Your task to perform on an android device: toggle show notifications on the lock screen Image 0: 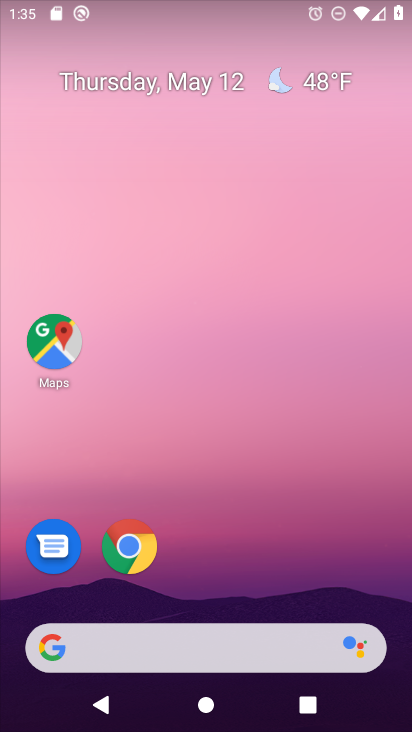
Step 0: drag from (235, 629) to (351, 181)
Your task to perform on an android device: toggle show notifications on the lock screen Image 1: 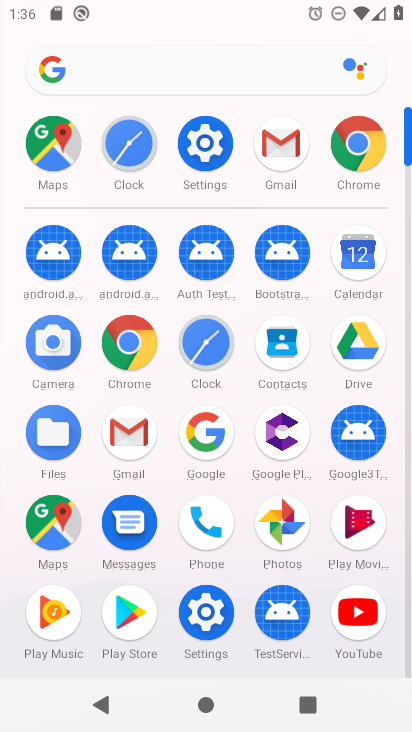
Step 1: click (209, 150)
Your task to perform on an android device: toggle show notifications on the lock screen Image 2: 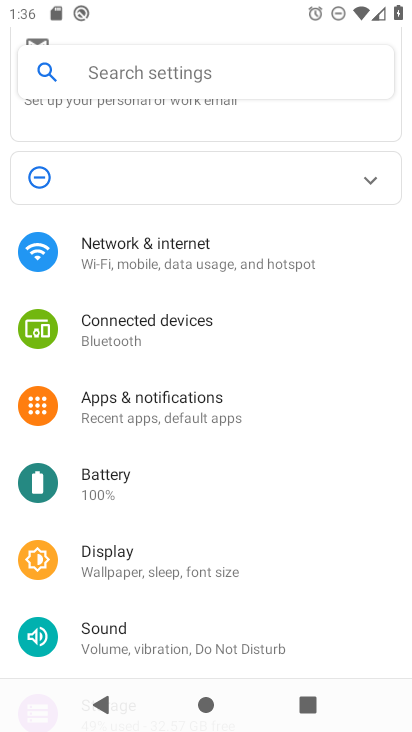
Step 2: drag from (266, 523) to (287, 319)
Your task to perform on an android device: toggle show notifications on the lock screen Image 3: 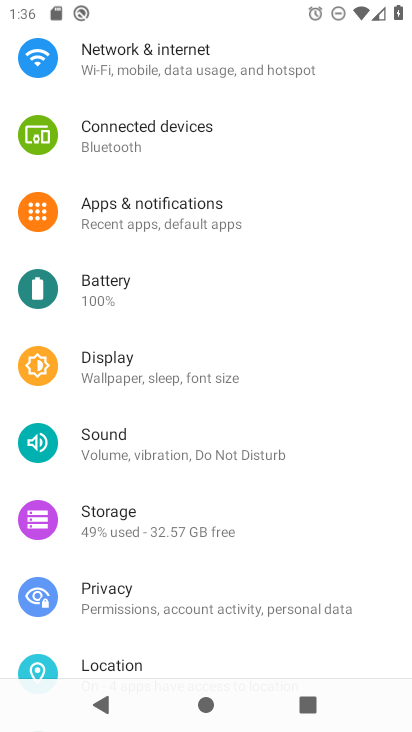
Step 3: click (200, 217)
Your task to perform on an android device: toggle show notifications on the lock screen Image 4: 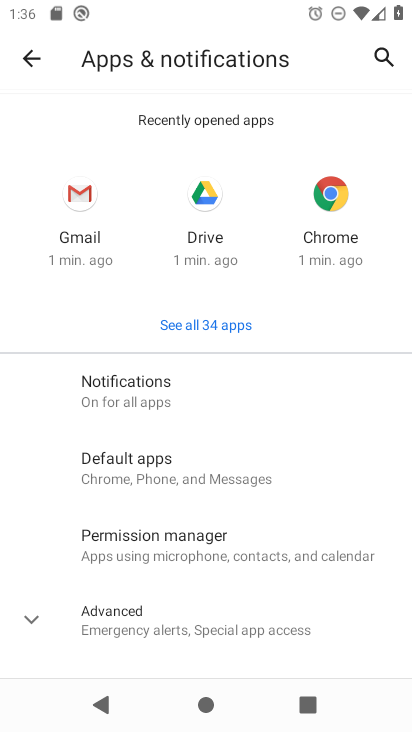
Step 4: click (137, 399)
Your task to perform on an android device: toggle show notifications on the lock screen Image 5: 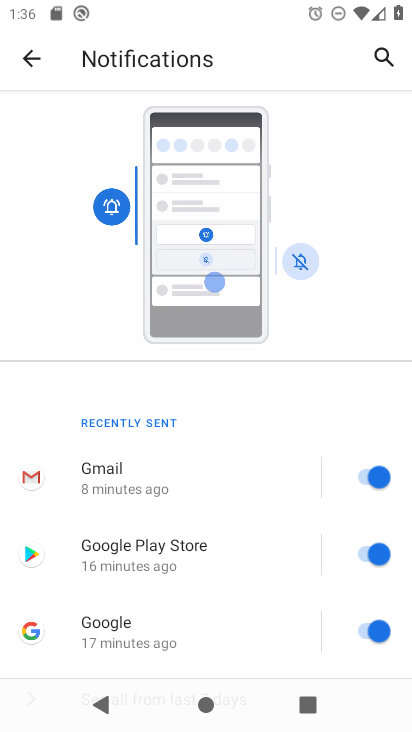
Step 5: drag from (213, 539) to (378, 131)
Your task to perform on an android device: toggle show notifications on the lock screen Image 6: 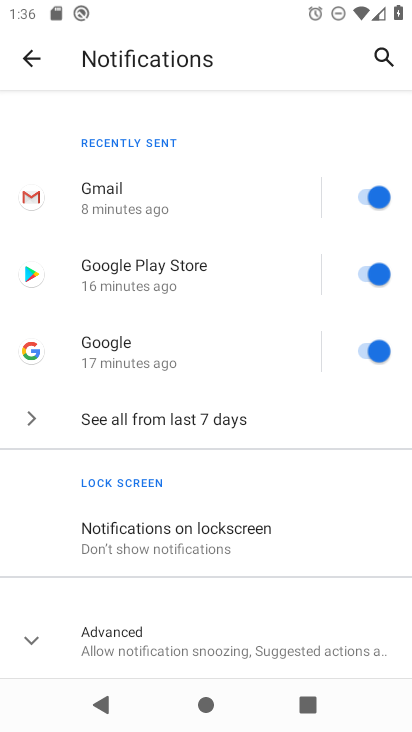
Step 6: click (182, 546)
Your task to perform on an android device: toggle show notifications on the lock screen Image 7: 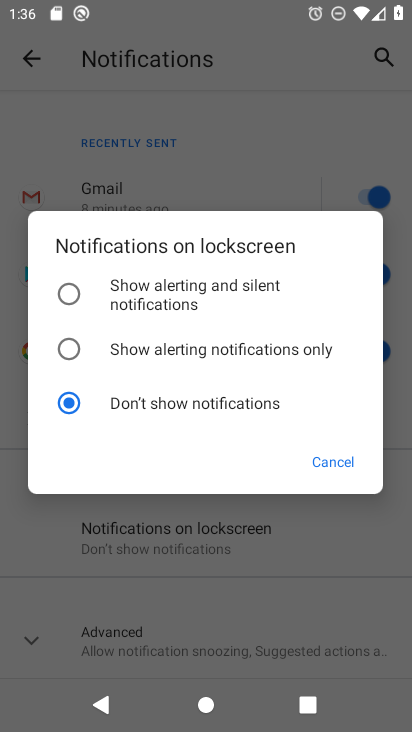
Step 7: click (69, 292)
Your task to perform on an android device: toggle show notifications on the lock screen Image 8: 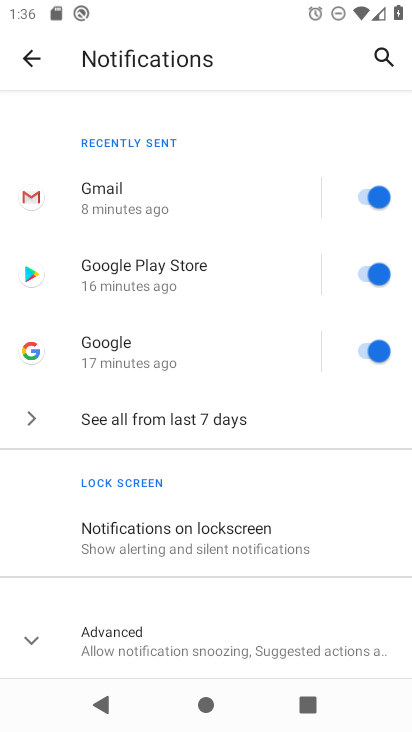
Step 8: task complete